Your task to perform on an android device: turn off data saver in the chrome app Image 0: 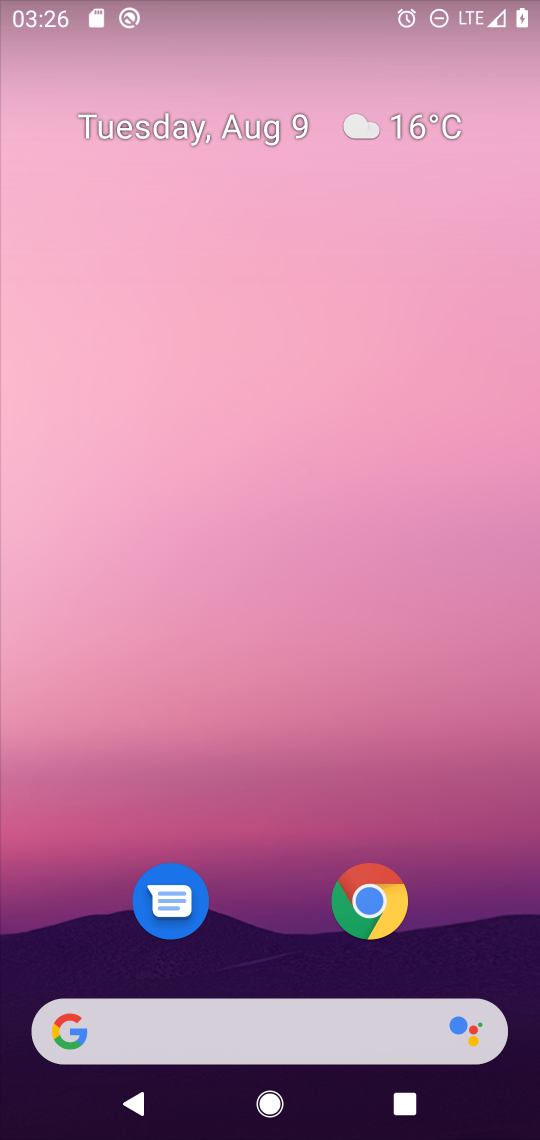
Step 0: click (371, 897)
Your task to perform on an android device: turn off data saver in the chrome app Image 1: 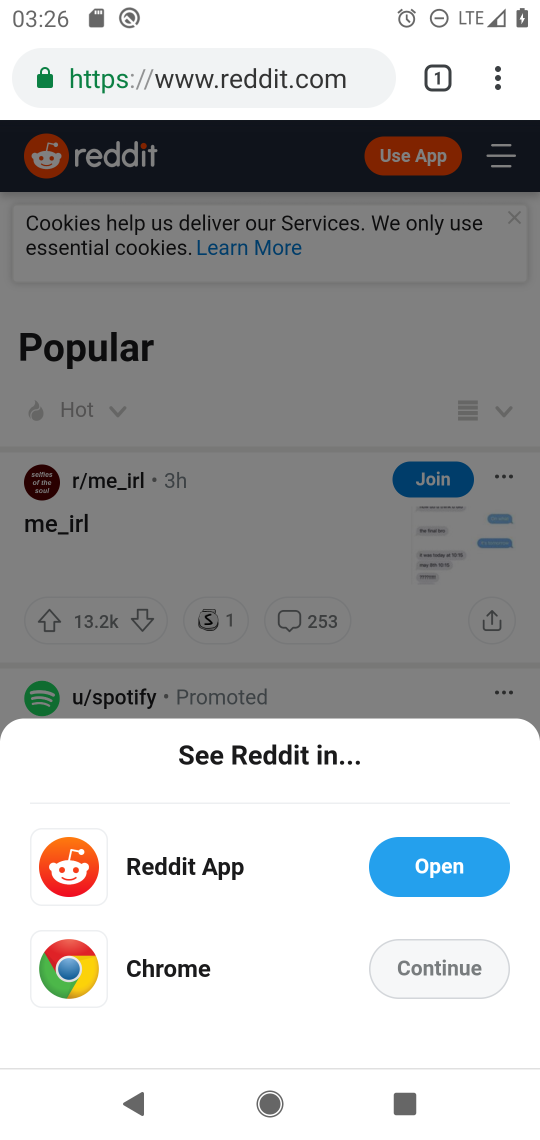
Step 1: click (492, 90)
Your task to perform on an android device: turn off data saver in the chrome app Image 2: 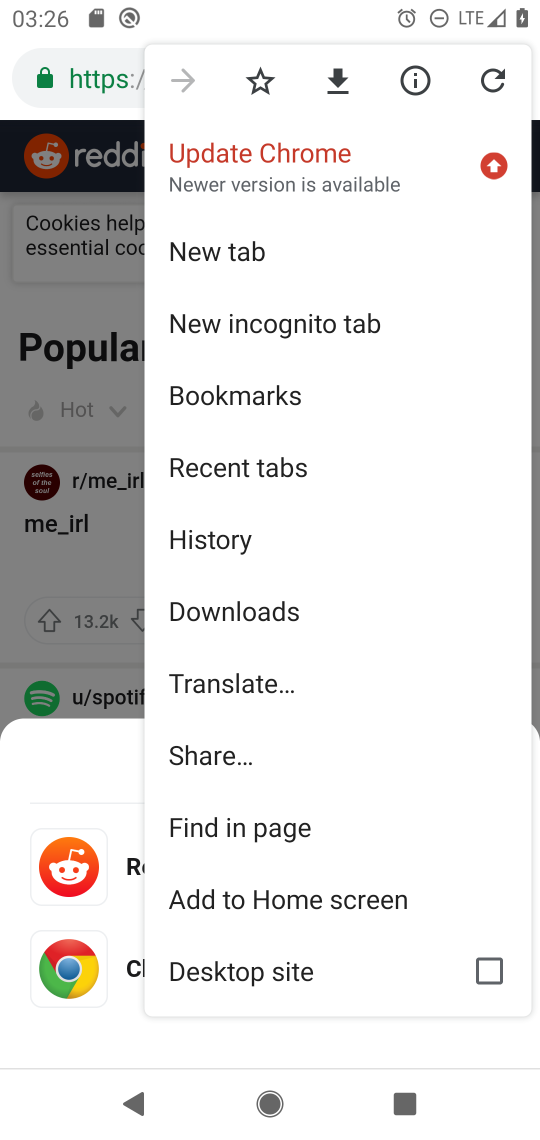
Step 2: drag from (439, 875) to (368, 363)
Your task to perform on an android device: turn off data saver in the chrome app Image 3: 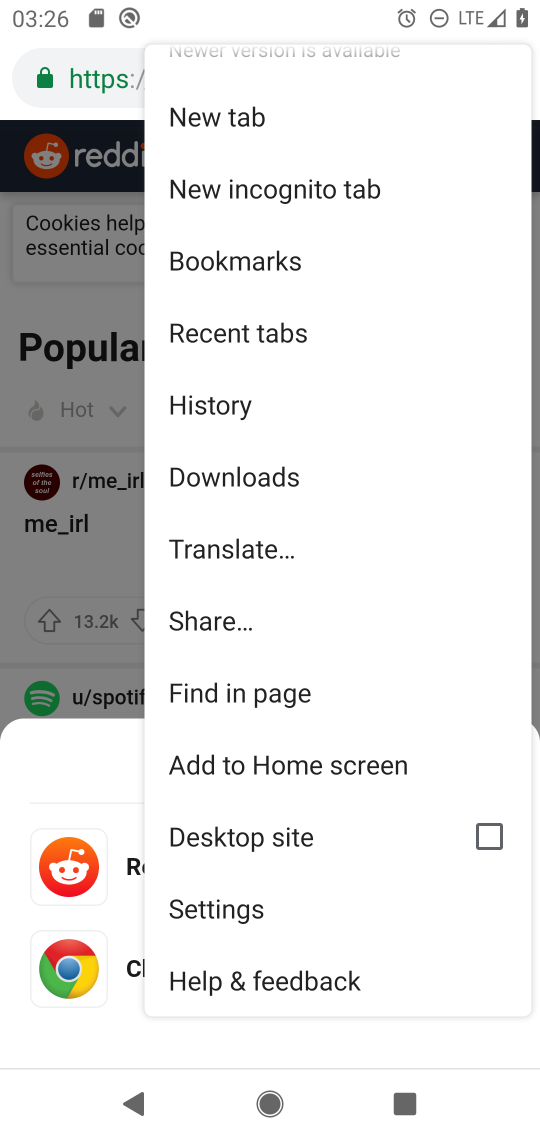
Step 3: click (232, 904)
Your task to perform on an android device: turn off data saver in the chrome app Image 4: 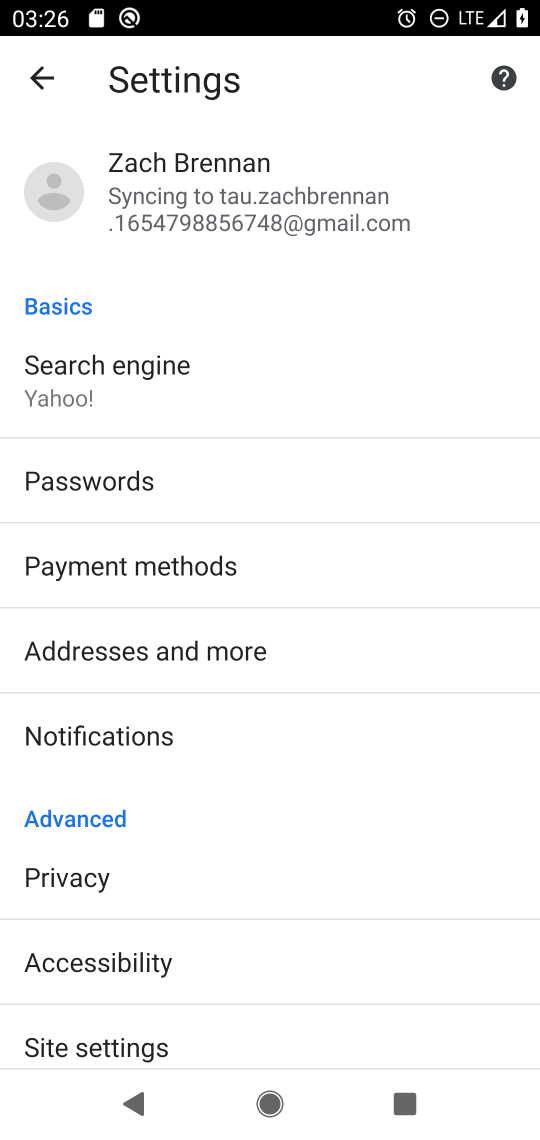
Step 4: drag from (346, 948) to (280, 293)
Your task to perform on an android device: turn off data saver in the chrome app Image 5: 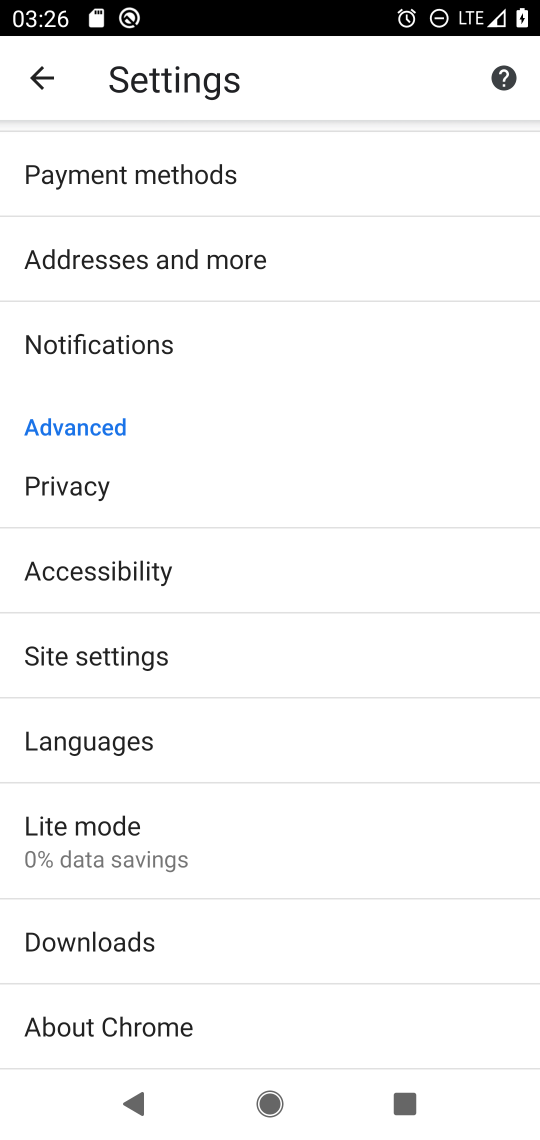
Step 5: click (100, 855)
Your task to perform on an android device: turn off data saver in the chrome app Image 6: 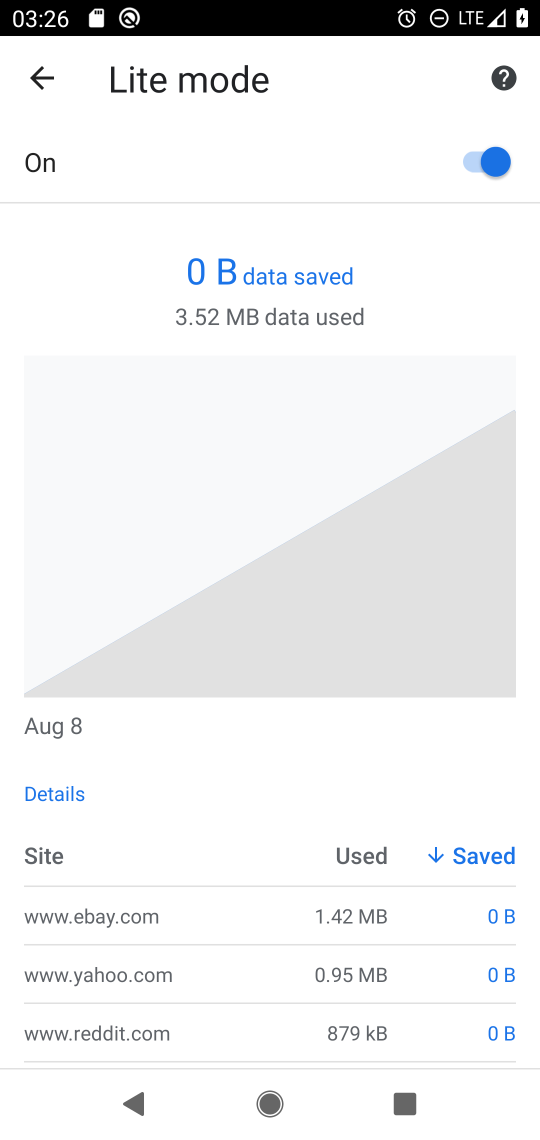
Step 6: click (461, 157)
Your task to perform on an android device: turn off data saver in the chrome app Image 7: 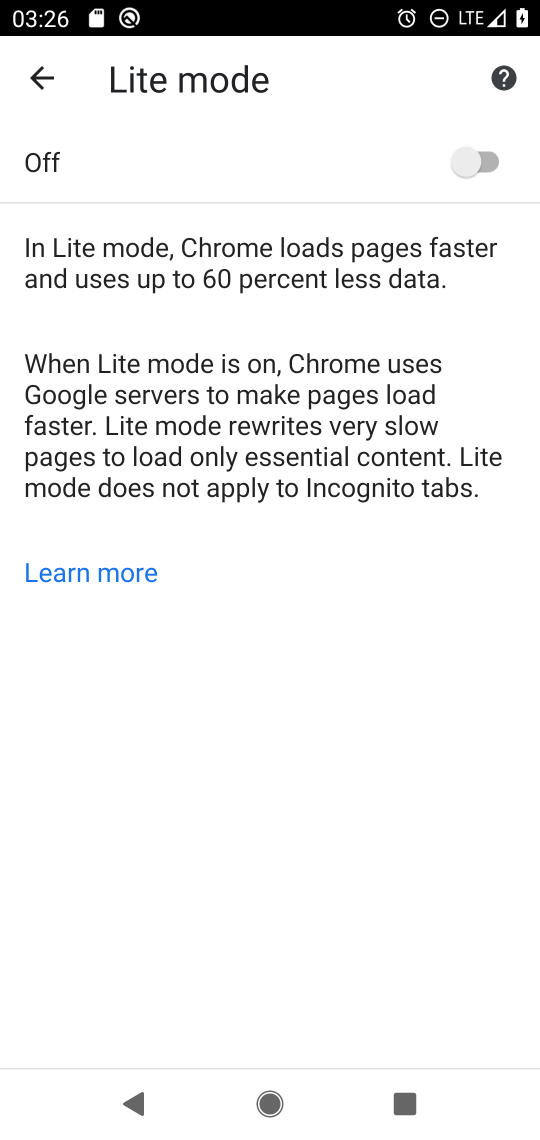
Step 7: task complete